Your task to perform on an android device: Open the calculator app Image 0: 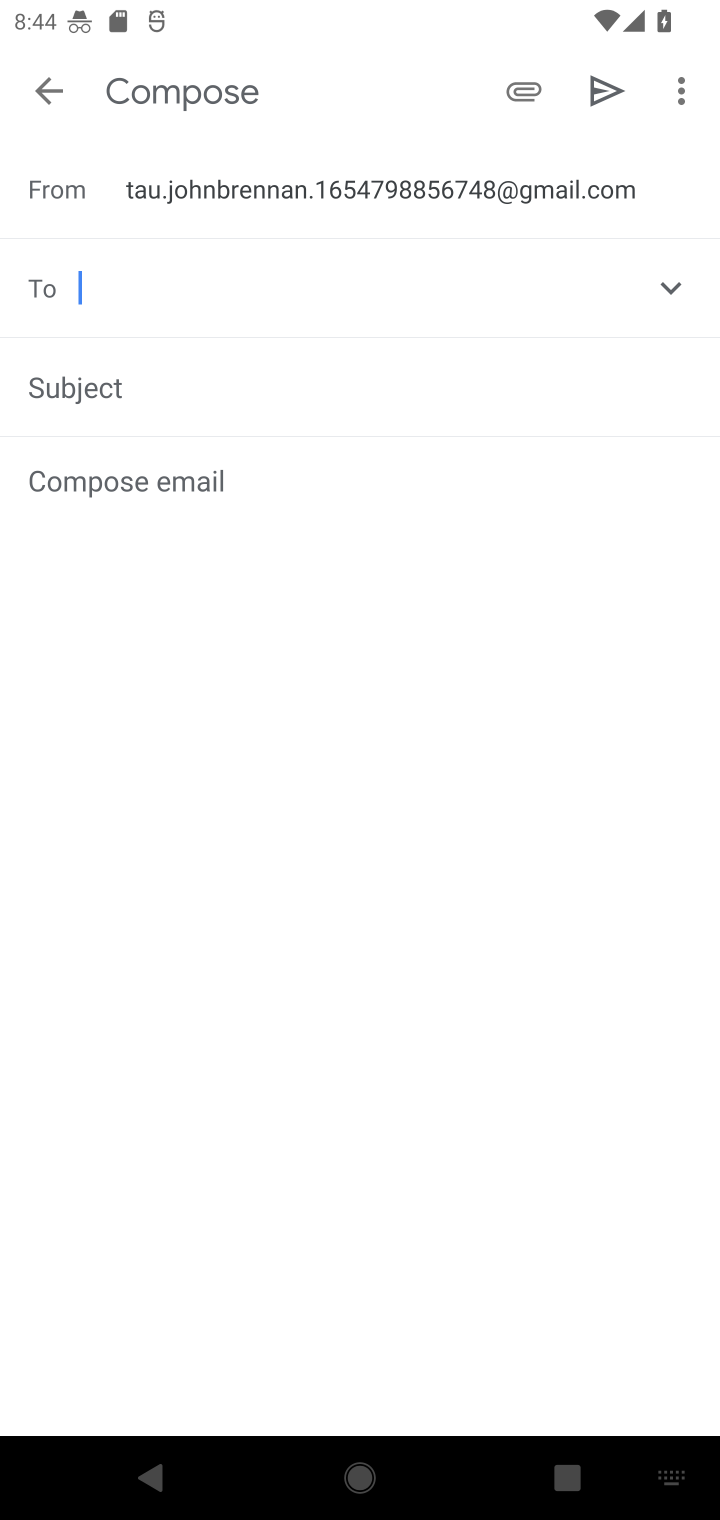
Step 0: press home button
Your task to perform on an android device: Open the calculator app Image 1: 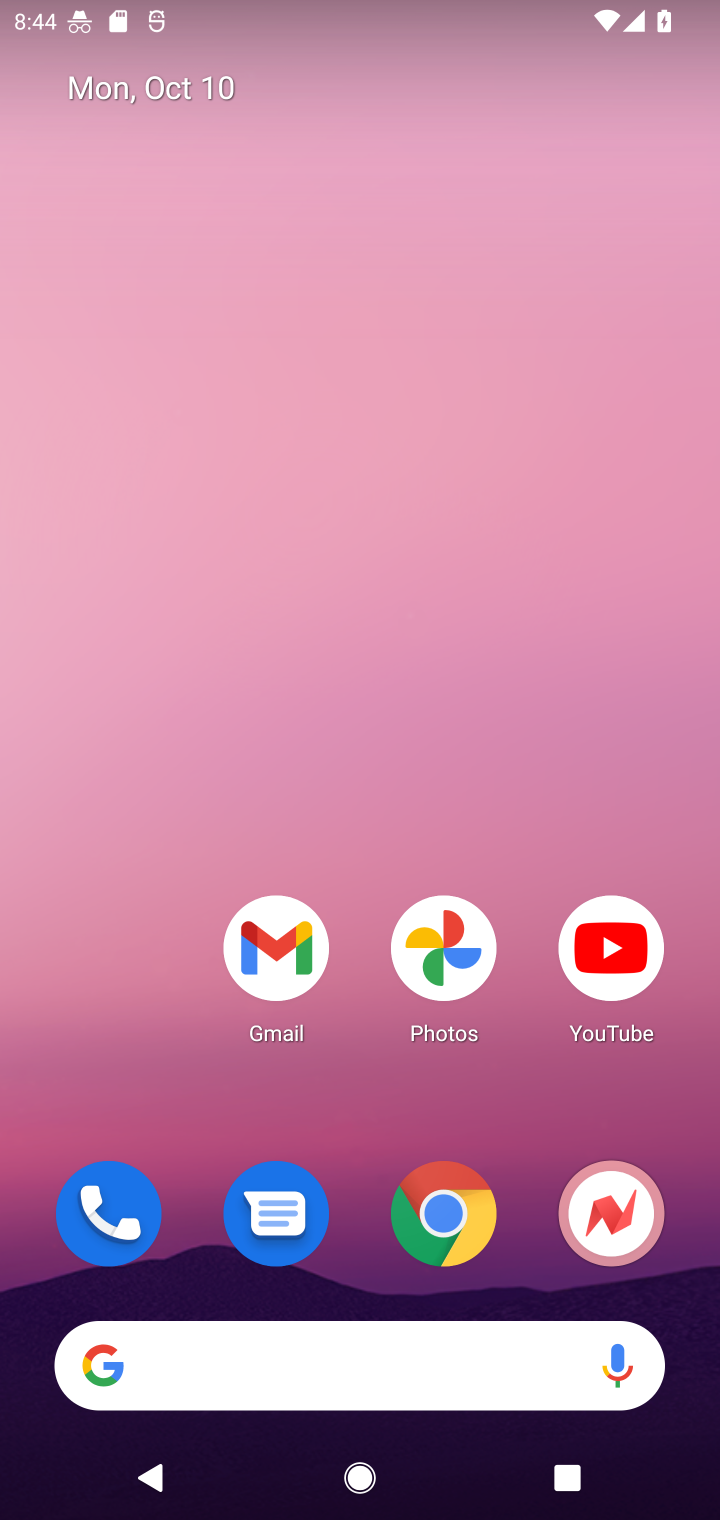
Step 1: task complete